Your task to perform on an android device: Open the map Image 0: 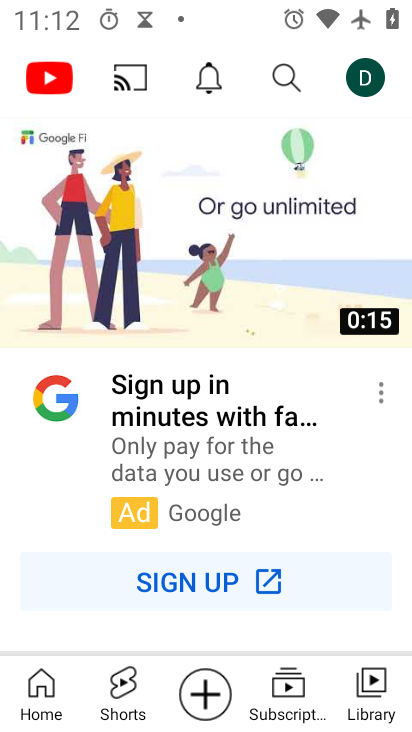
Step 0: press home button
Your task to perform on an android device: Open the map Image 1: 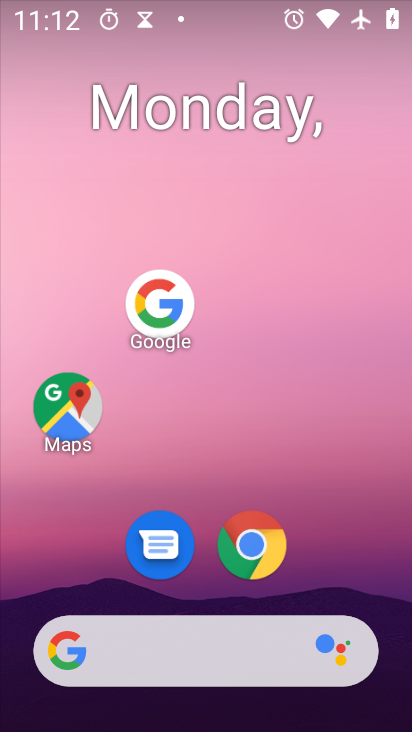
Step 1: click (70, 407)
Your task to perform on an android device: Open the map Image 2: 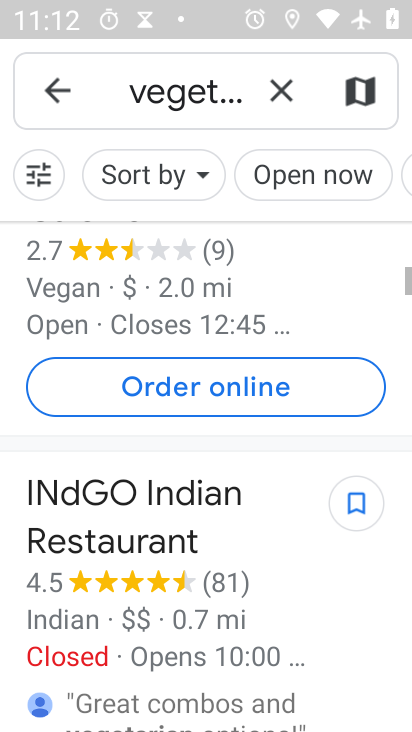
Step 2: click (75, 80)
Your task to perform on an android device: Open the map Image 3: 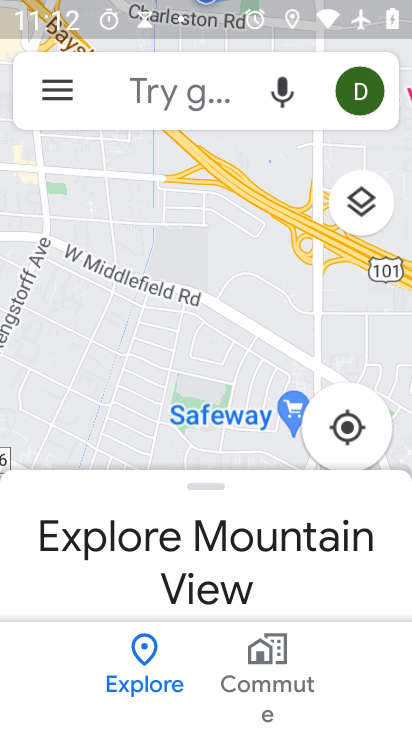
Step 3: task complete